Your task to perform on an android device: Open Chrome and go to the settings page Image 0: 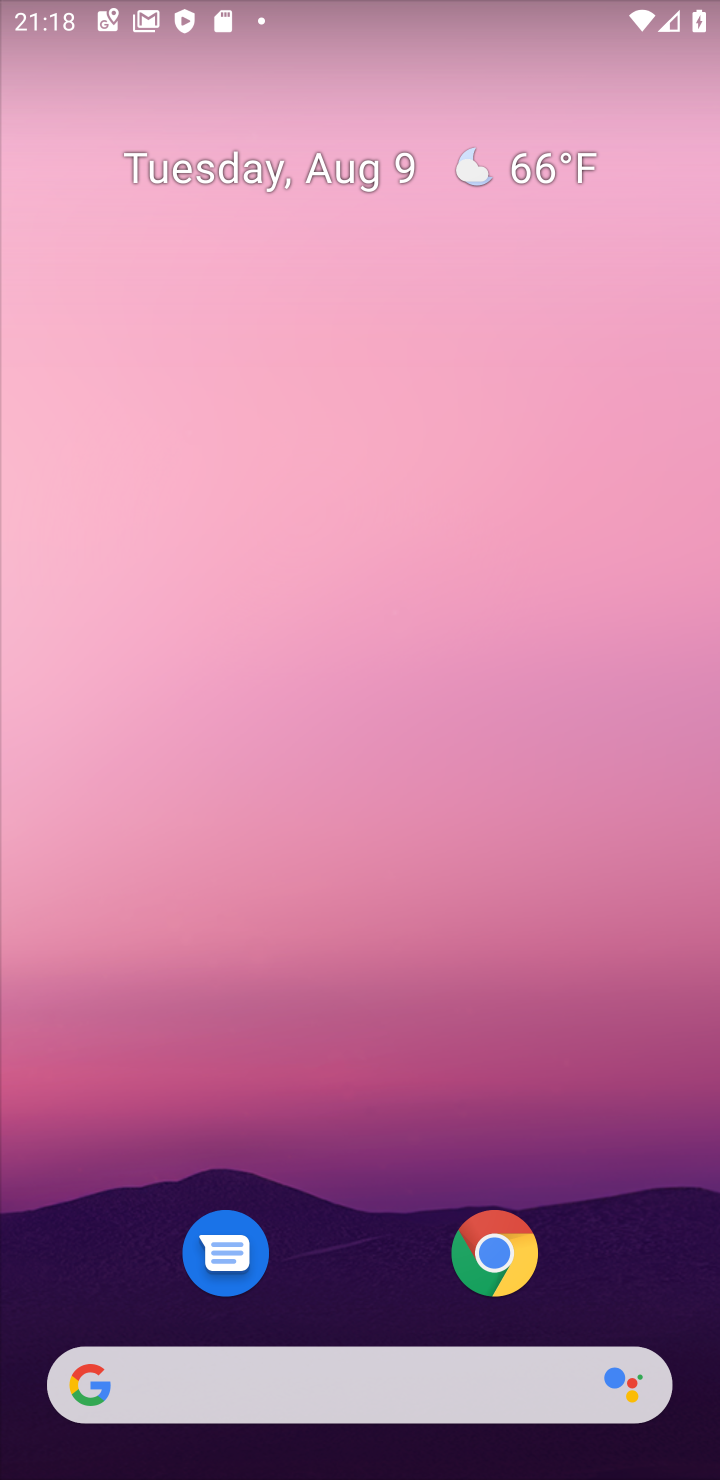
Step 0: press home button
Your task to perform on an android device: Open Chrome and go to the settings page Image 1: 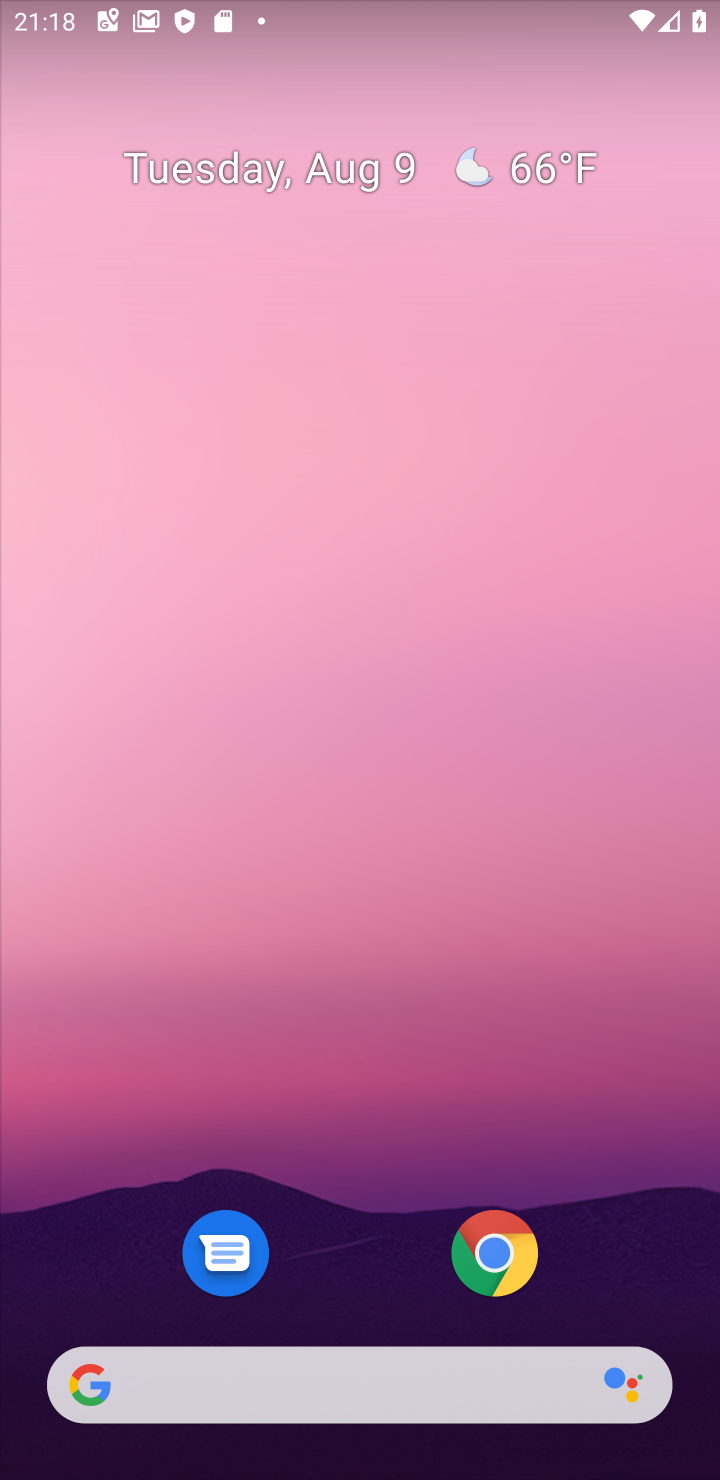
Step 1: press home button
Your task to perform on an android device: Open Chrome and go to the settings page Image 2: 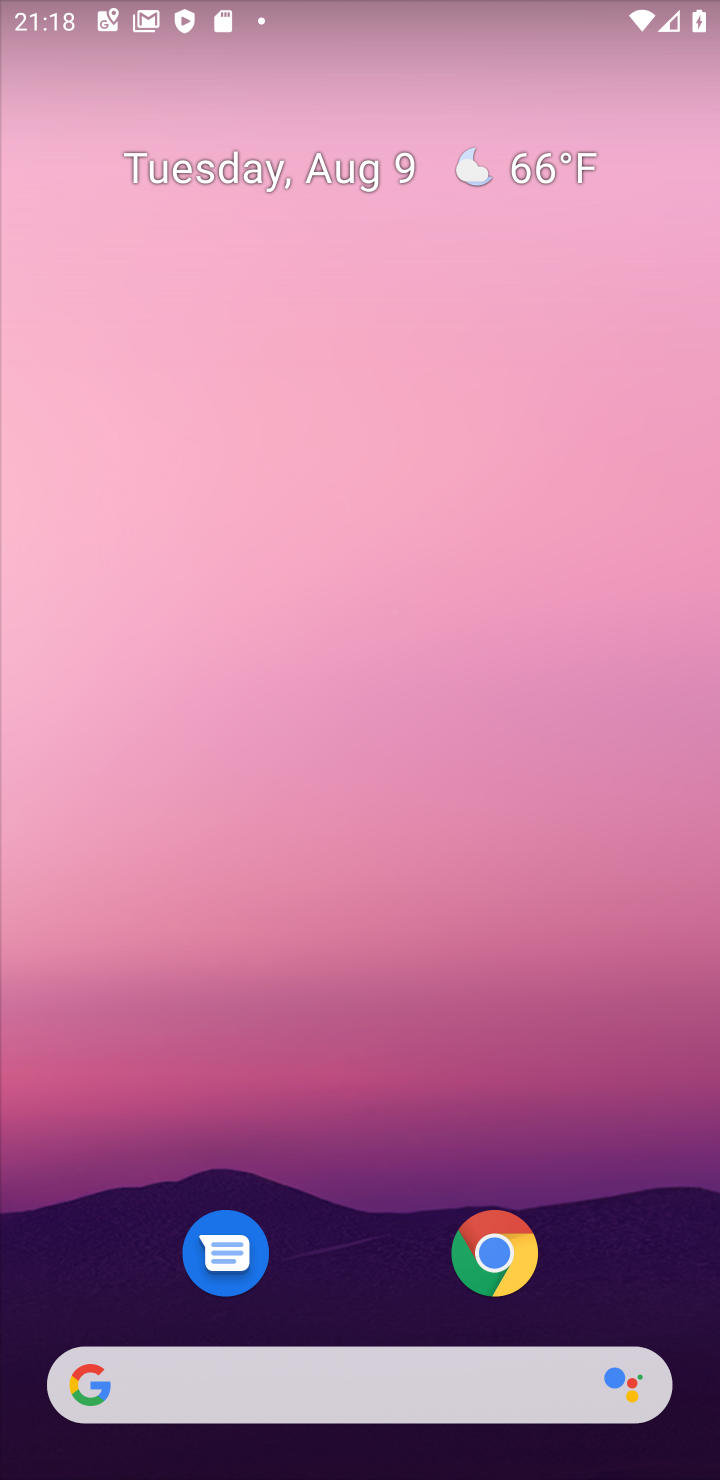
Step 2: press home button
Your task to perform on an android device: Open Chrome and go to the settings page Image 3: 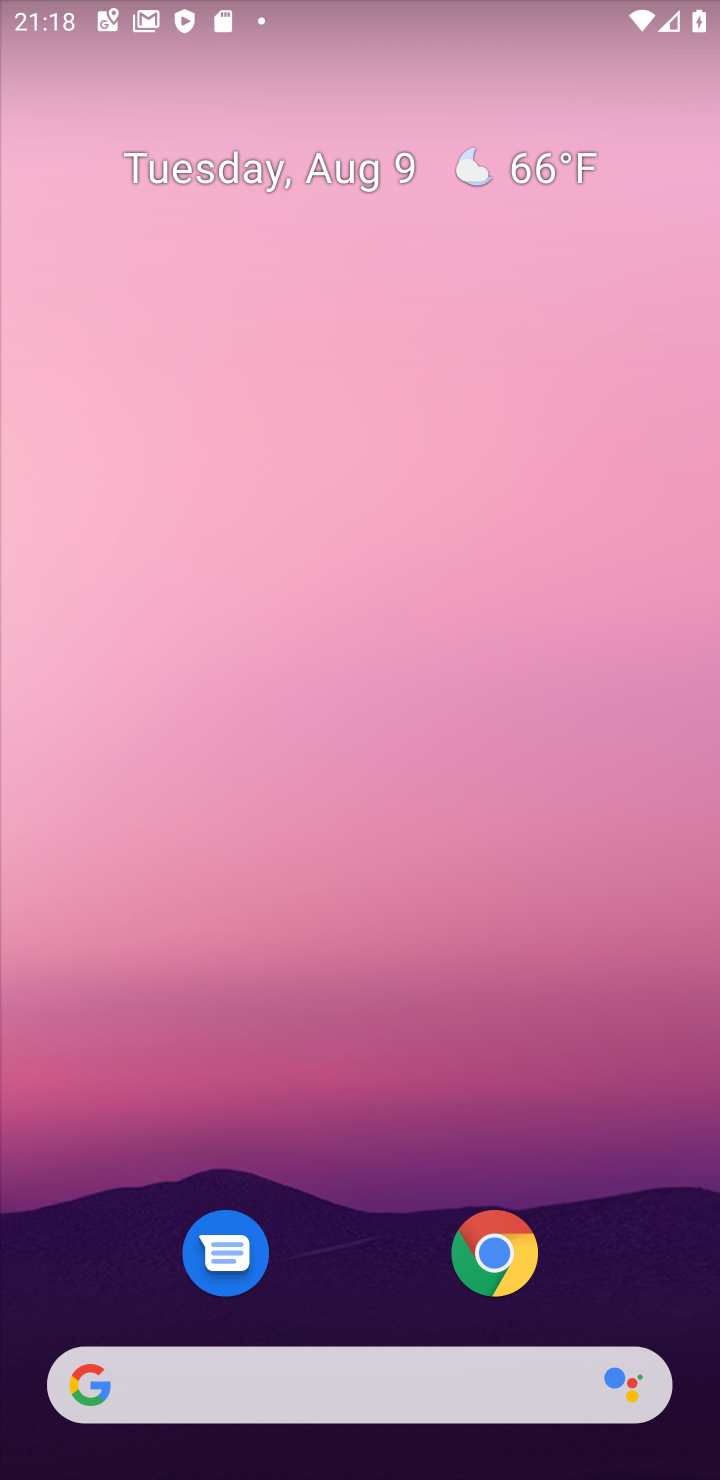
Step 3: drag from (313, 1102) to (312, 290)
Your task to perform on an android device: Open Chrome and go to the settings page Image 4: 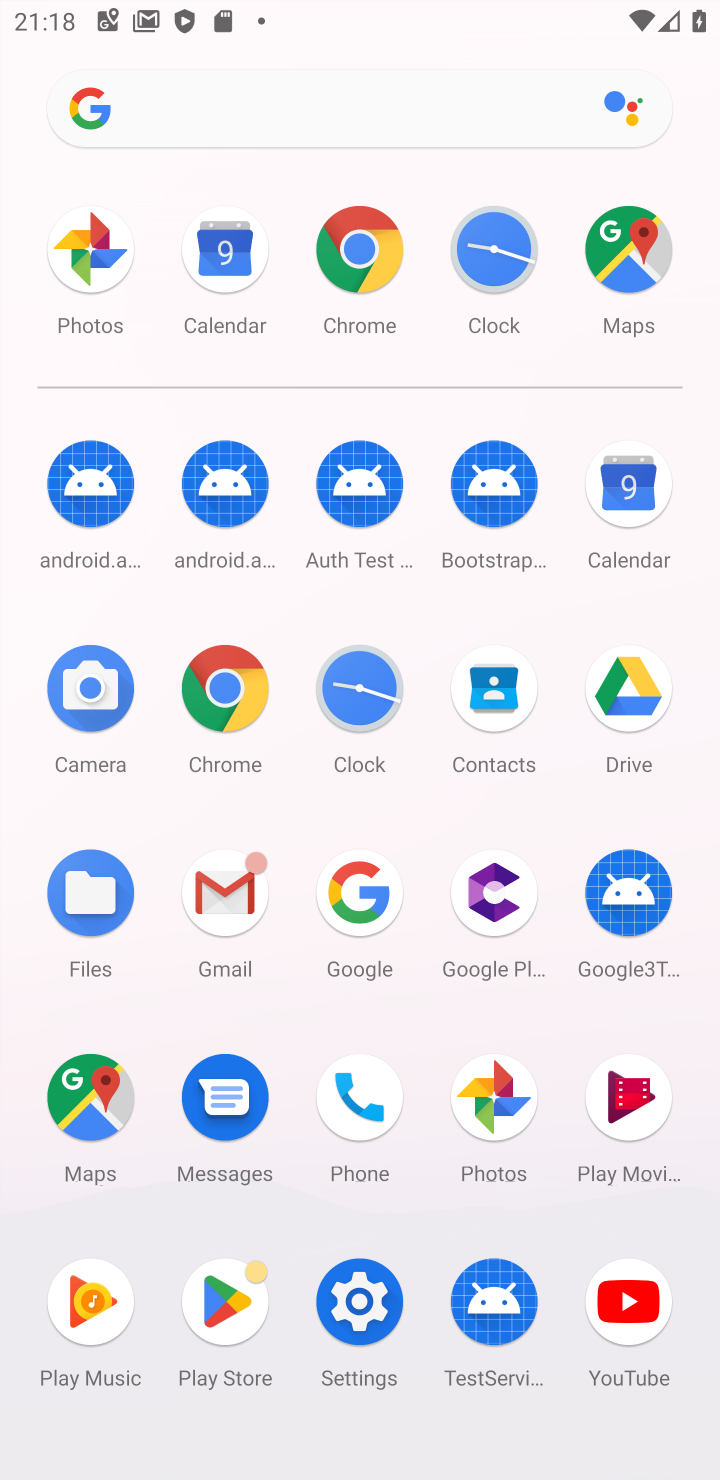
Step 4: click (221, 694)
Your task to perform on an android device: Open Chrome and go to the settings page Image 5: 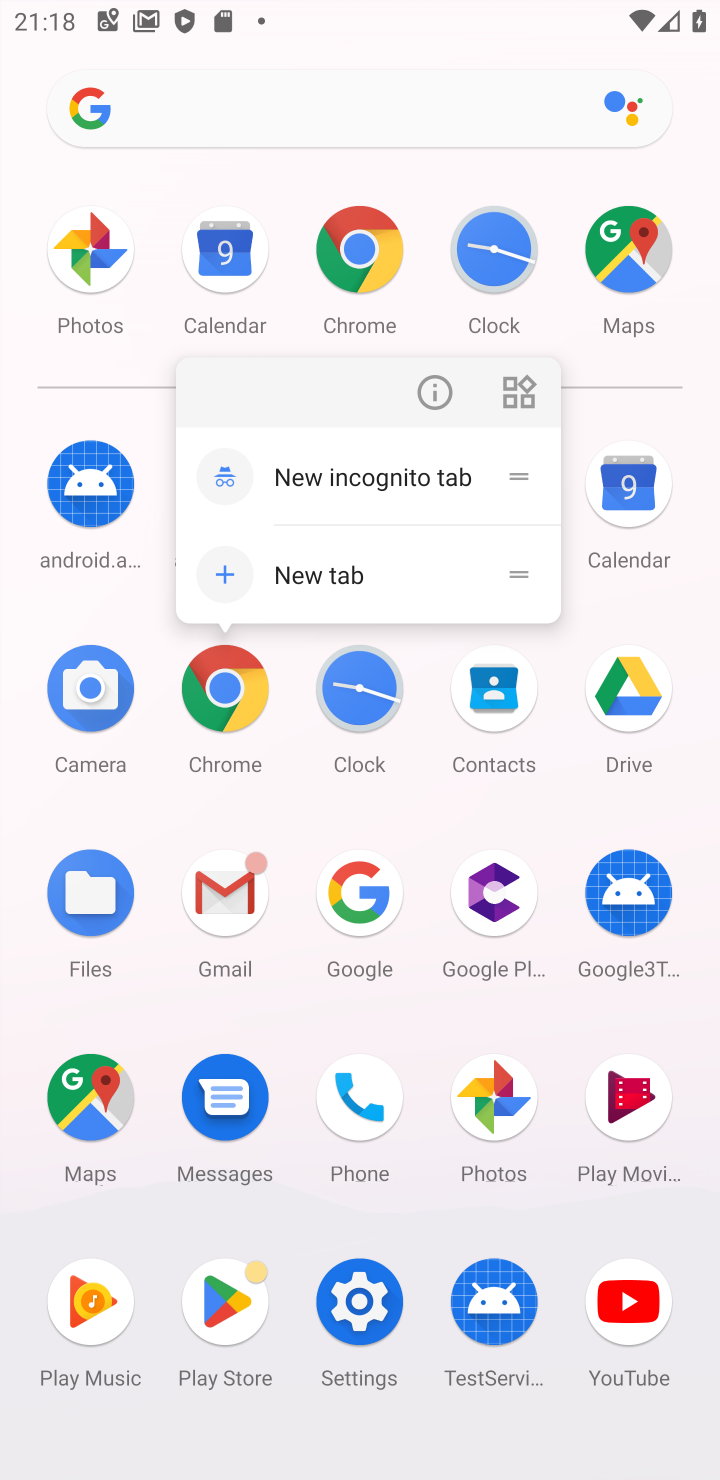
Step 5: click (221, 694)
Your task to perform on an android device: Open Chrome and go to the settings page Image 6: 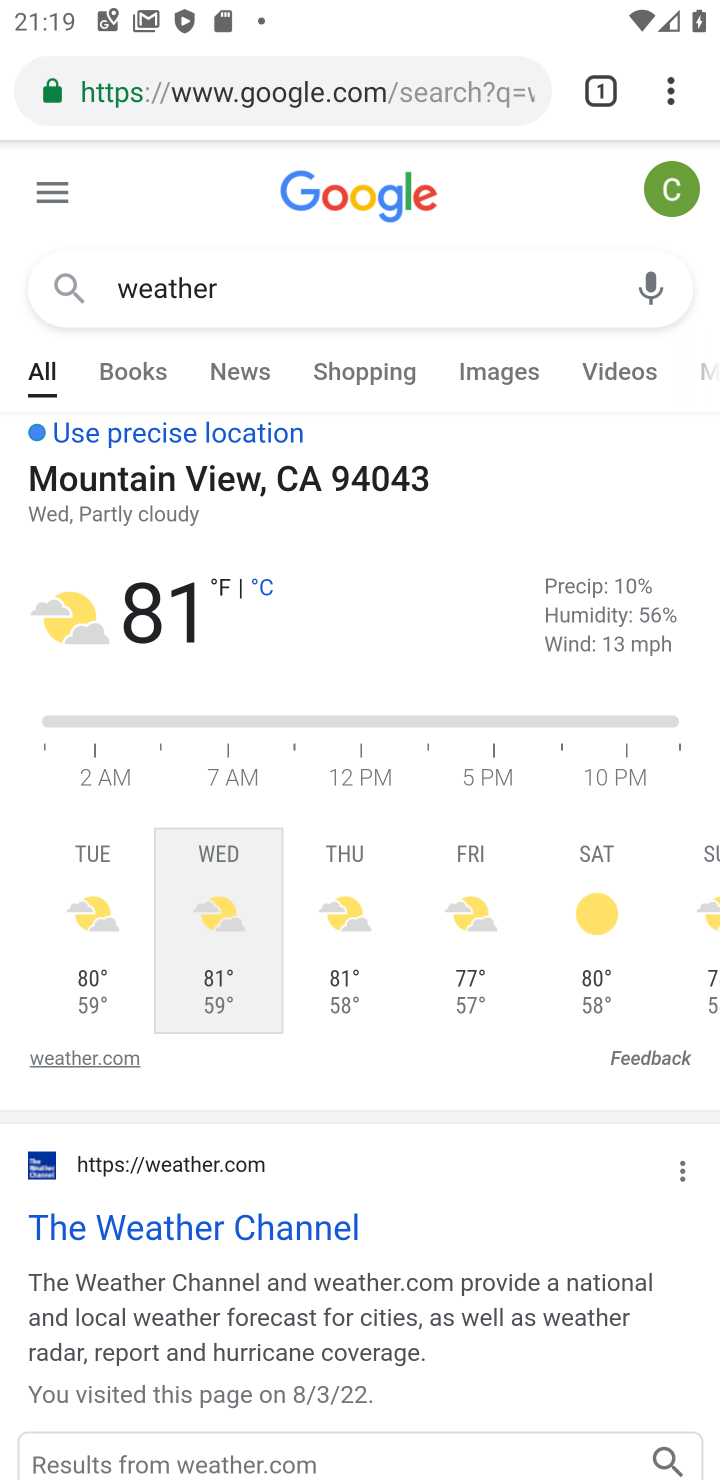
Step 6: task complete